Your task to perform on an android device: change alarm snooze length Image 0: 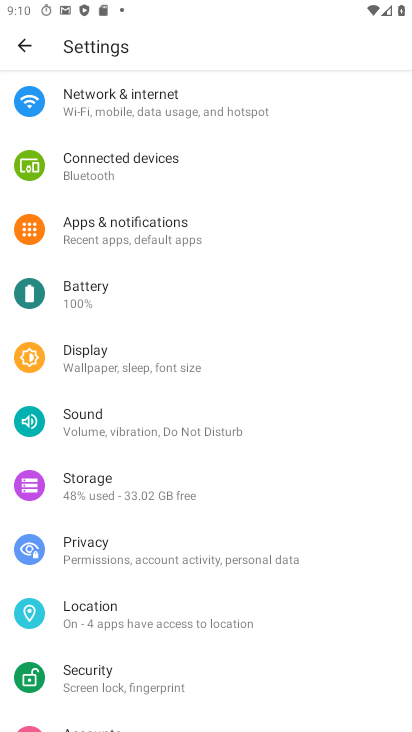
Step 0: press home button
Your task to perform on an android device: change alarm snooze length Image 1: 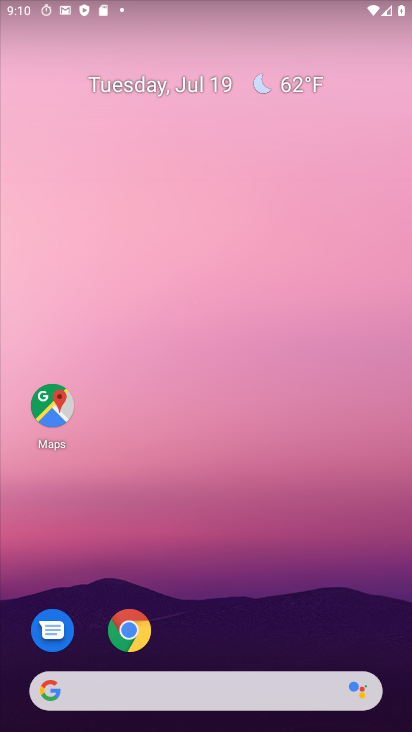
Step 1: drag from (24, 676) to (206, 258)
Your task to perform on an android device: change alarm snooze length Image 2: 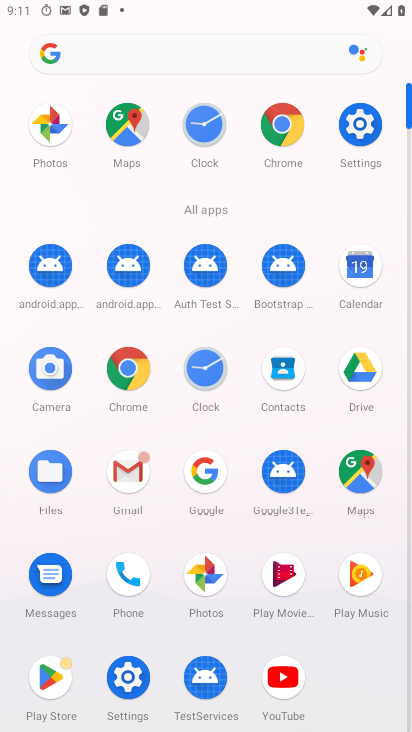
Step 2: click (209, 391)
Your task to perform on an android device: change alarm snooze length Image 3: 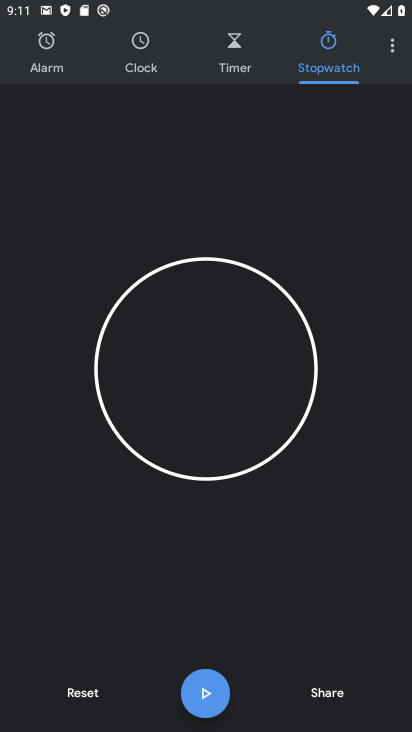
Step 3: click (46, 69)
Your task to perform on an android device: change alarm snooze length Image 4: 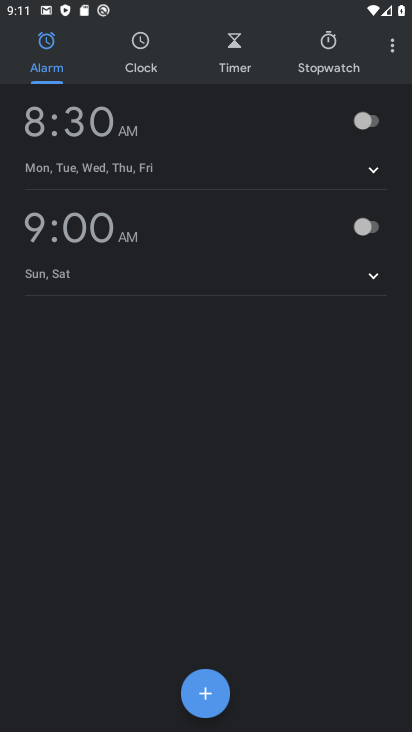
Step 4: click (392, 40)
Your task to perform on an android device: change alarm snooze length Image 5: 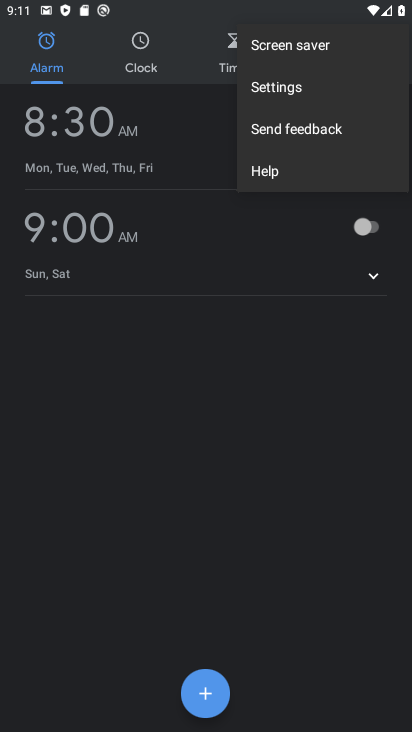
Step 5: click (287, 89)
Your task to perform on an android device: change alarm snooze length Image 6: 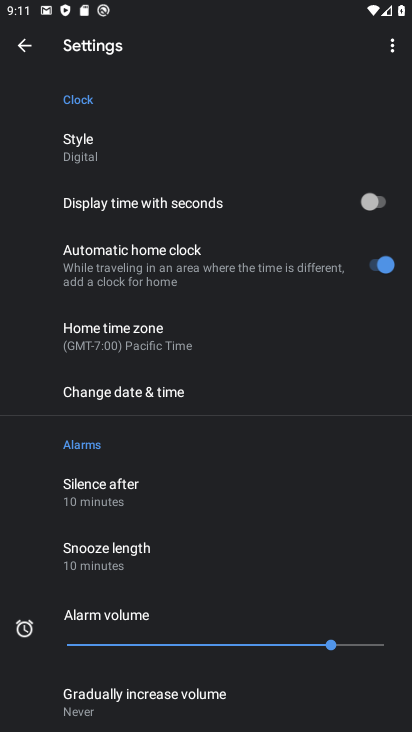
Step 6: click (76, 564)
Your task to perform on an android device: change alarm snooze length Image 7: 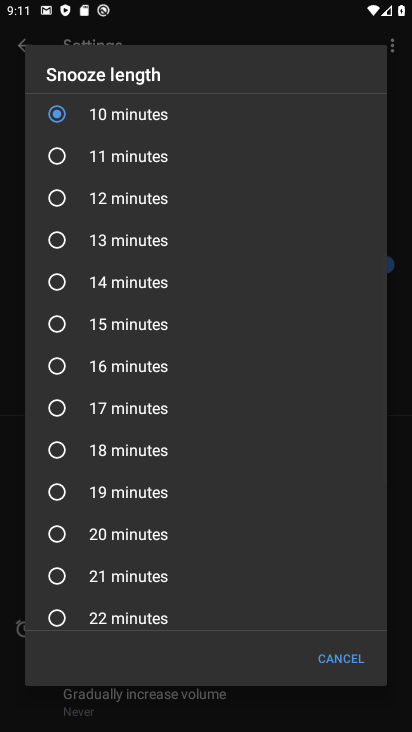
Step 7: click (50, 328)
Your task to perform on an android device: change alarm snooze length Image 8: 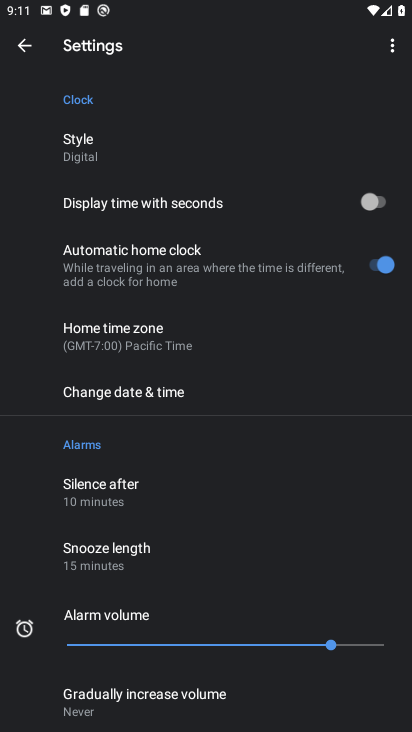
Step 8: task complete